Your task to perform on an android device: Turn on the flashlight Image 0: 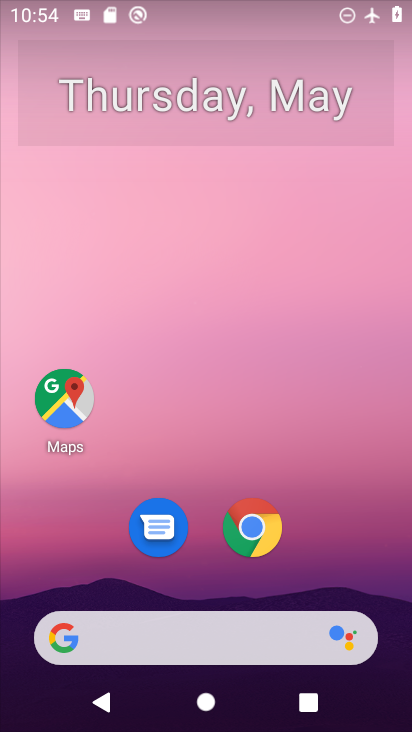
Step 0: drag from (294, 3) to (289, 616)
Your task to perform on an android device: Turn on the flashlight Image 1: 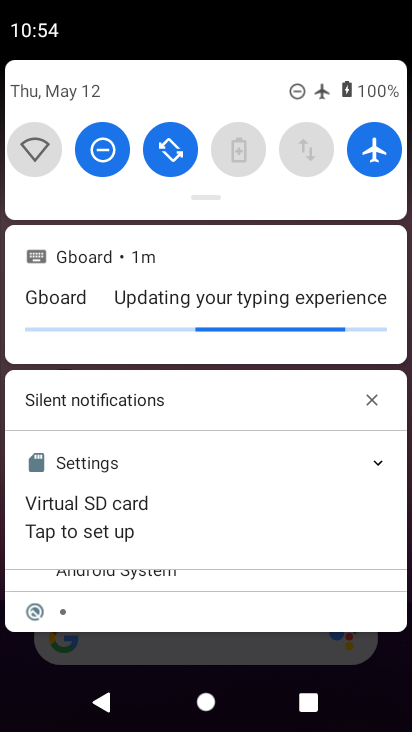
Step 1: task complete